Your task to perform on an android device: Show me recent news Image 0: 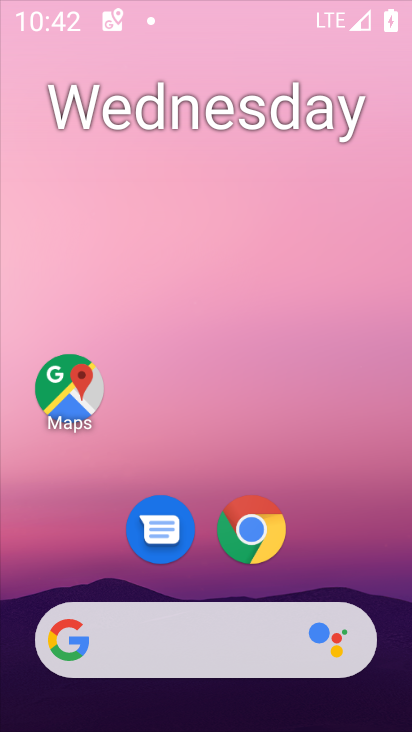
Step 0: click (383, 380)
Your task to perform on an android device: Show me recent news Image 1: 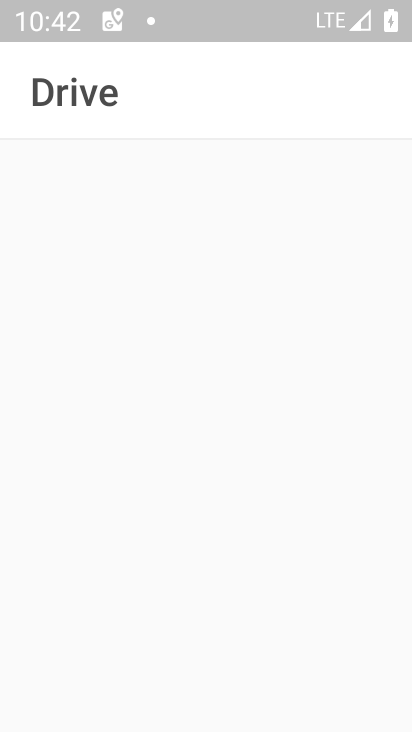
Step 1: task complete